Your task to perform on an android device: see creations saved in the google photos Image 0: 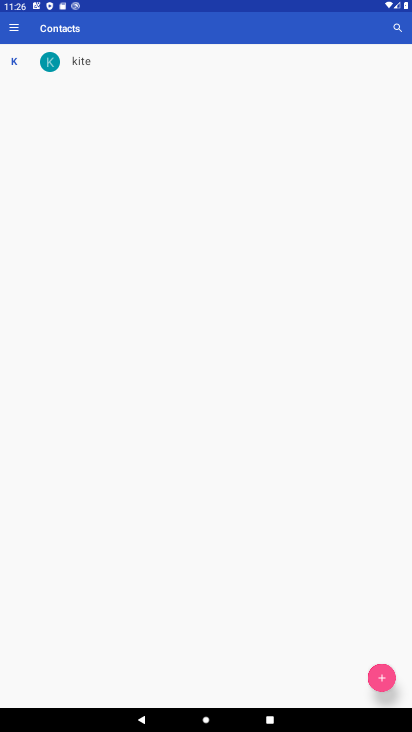
Step 0: press home button
Your task to perform on an android device: see creations saved in the google photos Image 1: 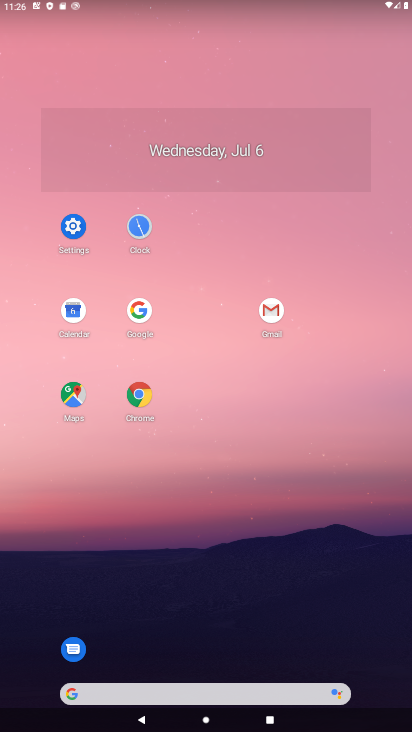
Step 1: drag from (212, 475) to (228, 29)
Your task to perform on an android device: see creations saved in the google photos Image 2: 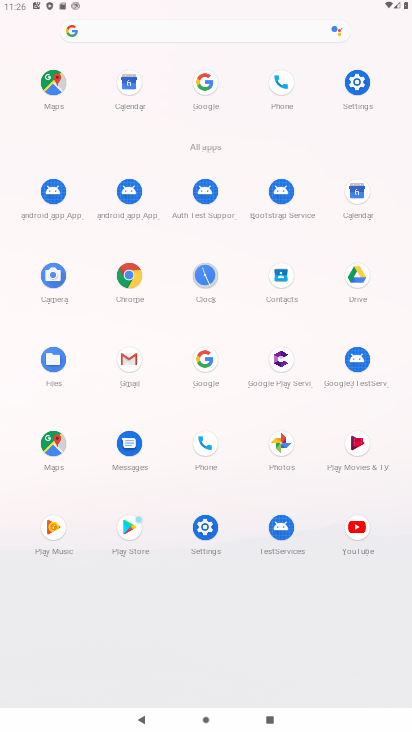
Step 2: drag from (274, 439) to (228, 209)
Your task to perform on an android device: see creations saved in the google photos Image 3: 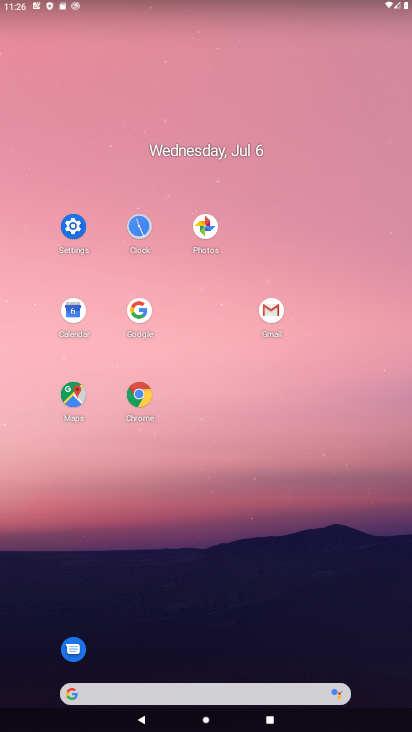
Step 3: click (209, 225)
Your task to perform on an android device: see creations saved in the google photos Image 4: 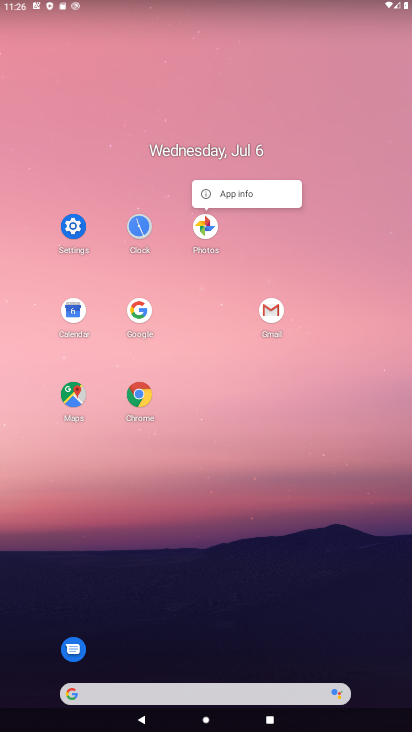
Step 4: click (210, 225)
Your task to perform on an android device: see creations saved in the google photos Image 5: 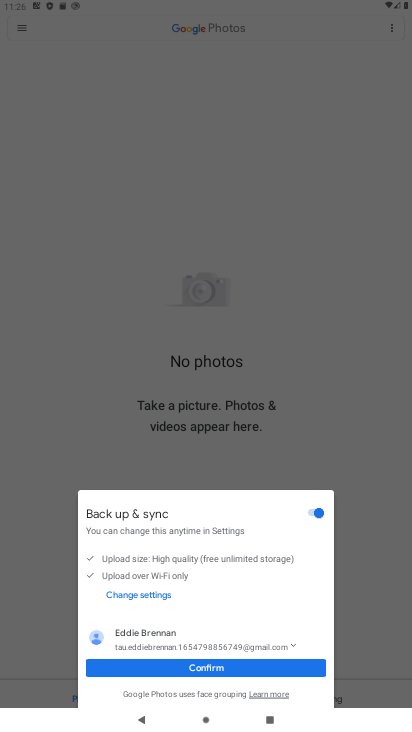
Step 5: click (385, 647)
Your task to perform on an android device: see creations saved in the google photos Image 6: 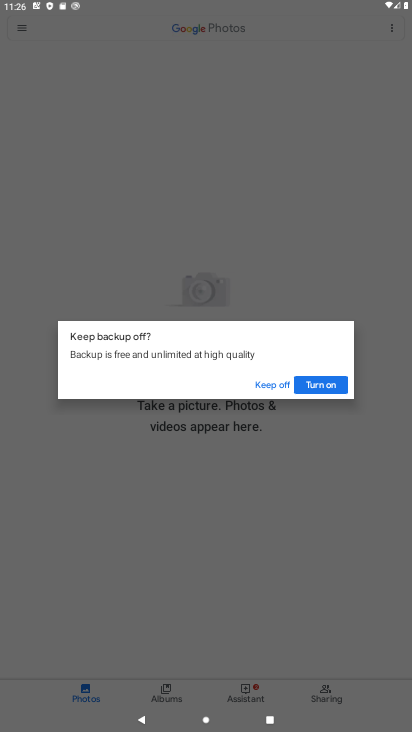
Step 6: click (318, 383)
Your task to perform on an android device: see creations saved in the google photos Image 7: 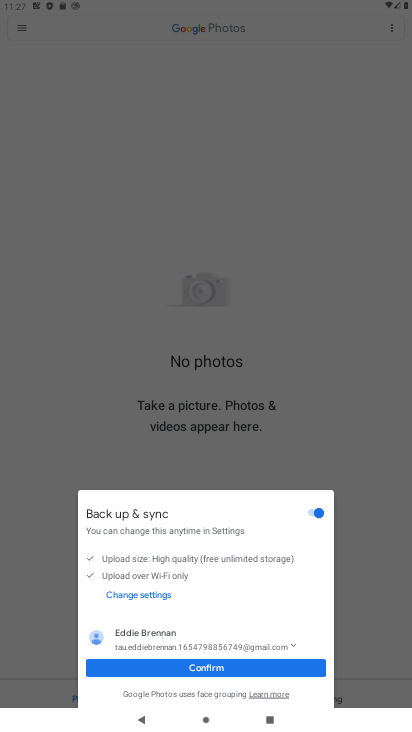
Step 7: click (318, 383)
Your task to perform on an android device: see creations saved in the google photos Image 8: 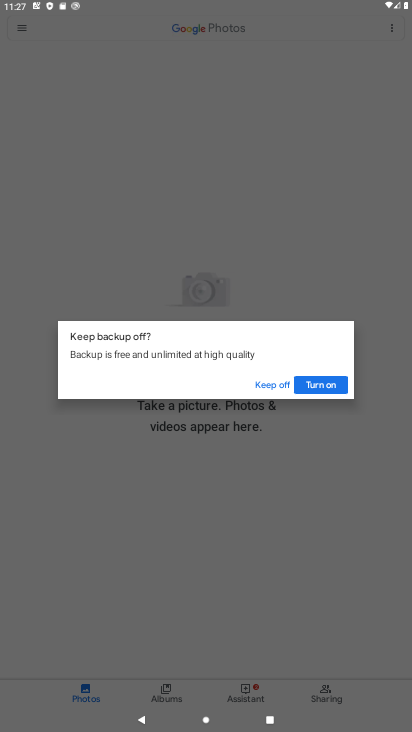
Step 8: click (311, 392)
Your task to perform on an android device: see creations saved in the google photos Image 9: 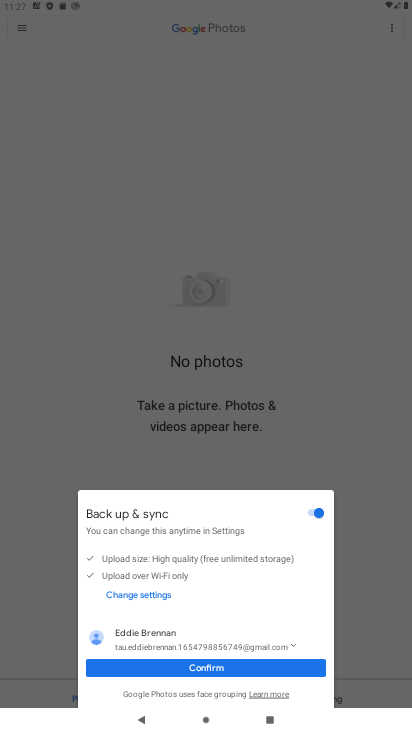
Step 9: click (250, 668)
Your task to perform on an android device: see creations saved in the google photos Image 10: 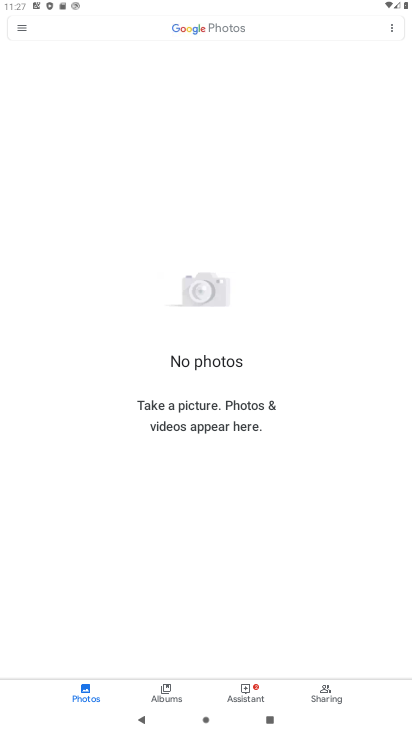
Step 10: click (27, 38)
Your task to perform on an android device: see creations saved in the google photos Image 11: 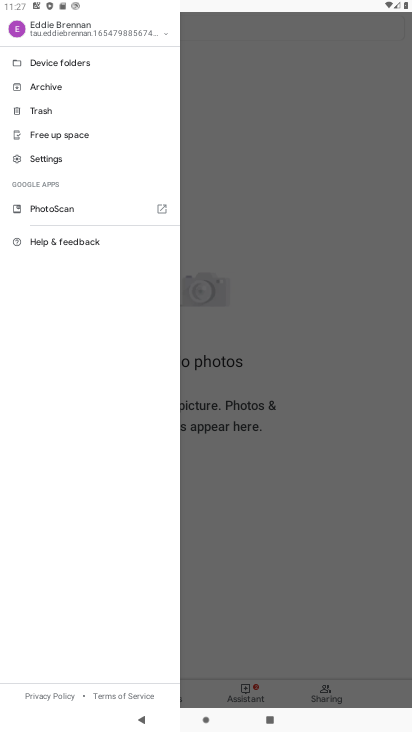
Step 11: click (274, 114)
Your task to perform on an android device: see creations saved in the google photos Image 12: 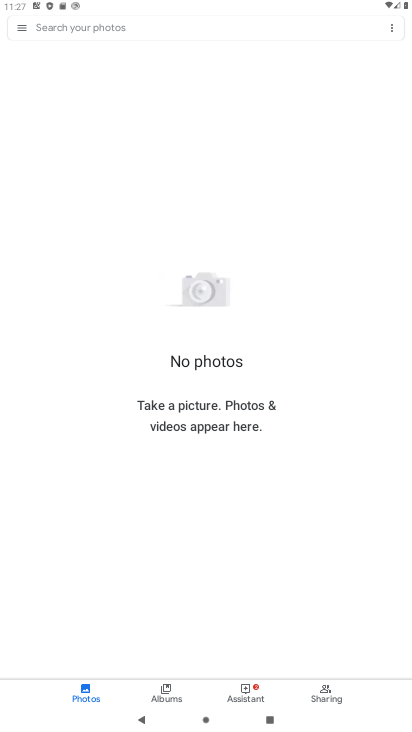
Step 12: click (114, 19)
Your task to perform on an android device: see creations saved in the google photos Image 13: 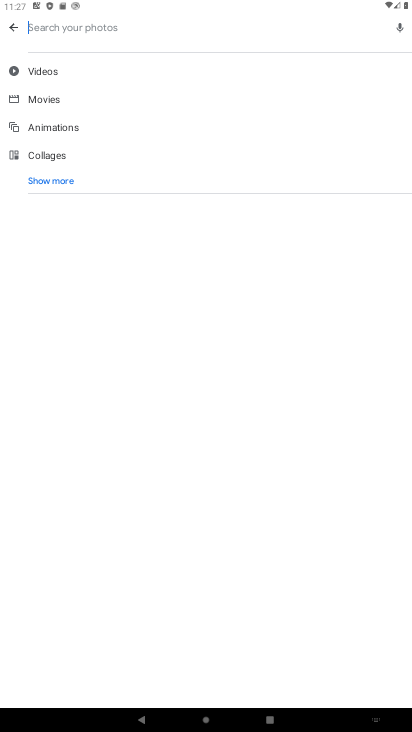
Step 13: click (57, 178)
Your task to perform on an android device: see creations saved in the google photos Image 14: 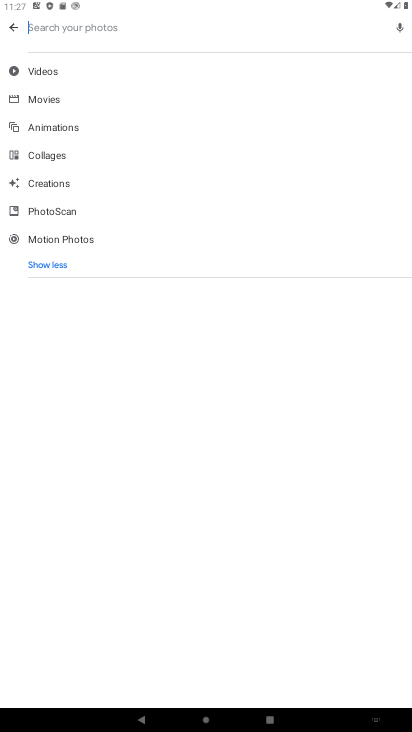
Step 14: click (57, 178)
Your task to perform on an android device: see creations saved in the google photos Image 15: 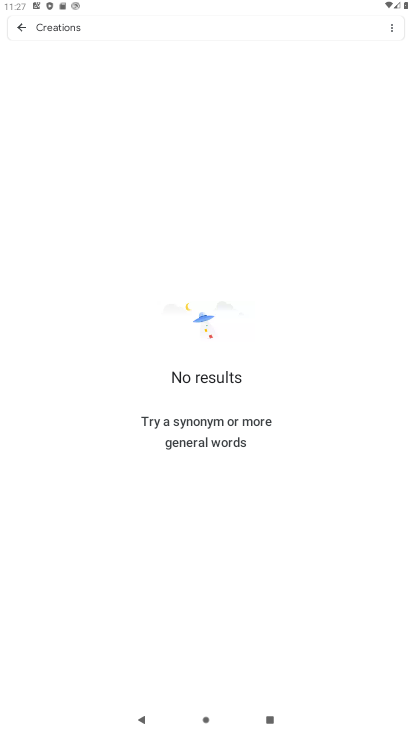
Step 15: task complete